Your task to perform on an android device: Search for Italian restaurants on Maps Image 0: 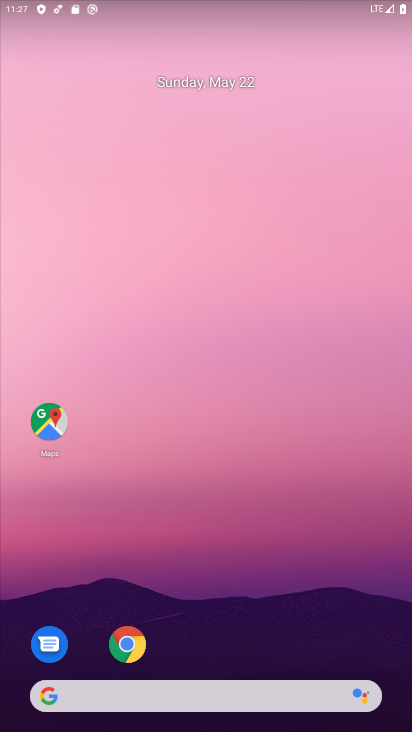
Step 0: click (57, 417)
Your task to perform on an android device: Search for Italian restaurants on Maps Image 1: 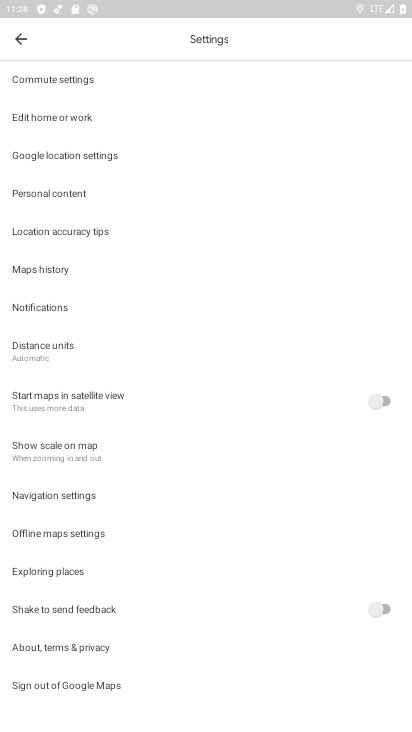
Step 1: click (26, 37)
Your task to perform on an android device: Search for Italian restaurants on Maps Image 2: 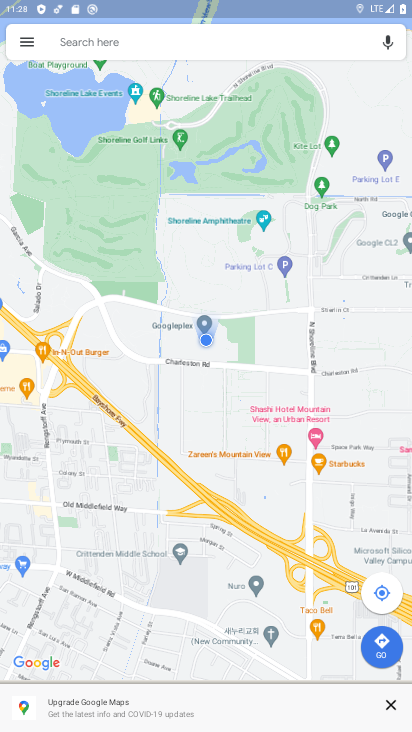
Step 2: click (187, 49)
Your task to perform on an android device: Search for Italian restaurants on Maps Image 3: 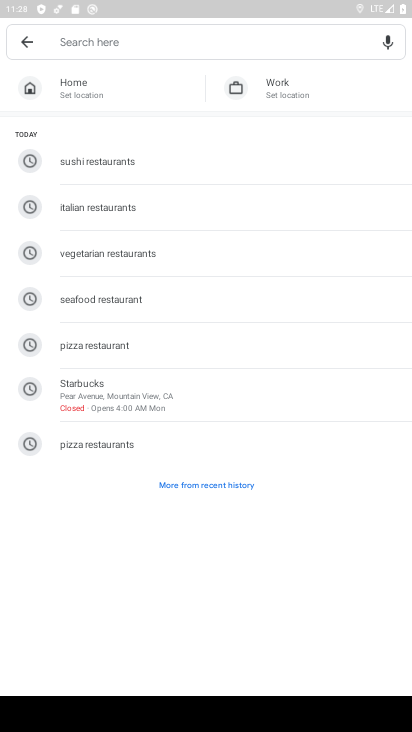
Step 3: click (124, 207)
Your task to perform on an android device: Search for Italian restaurants on Maps Image 4: 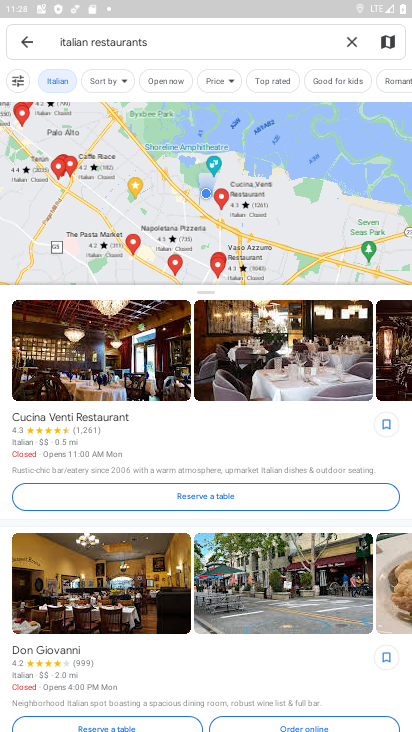
Step 4: task complete